Your task to perform on an android device: find photos in the google photos app Image 0: 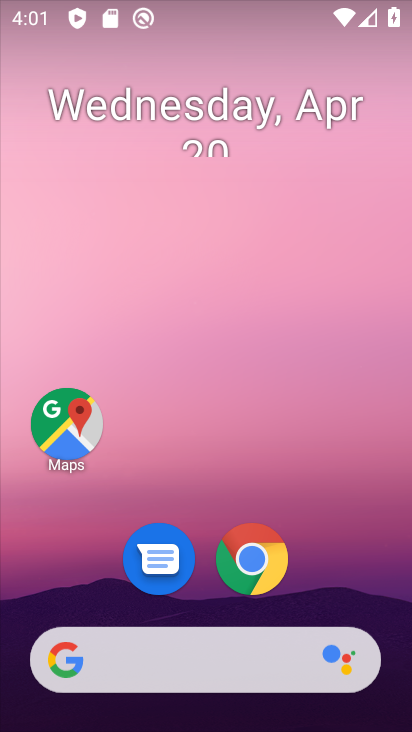
Step 0: drag from (318, 566) to (272, 182)
Your task to perform on an android device: find photos in the google photos app Image 1: 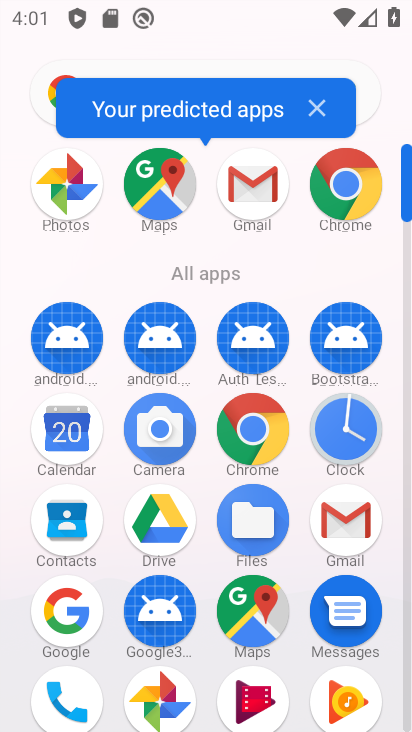
Step 1: click (168, 688)
Your task to perform on an android device: find photos in the google photos app Image 2: 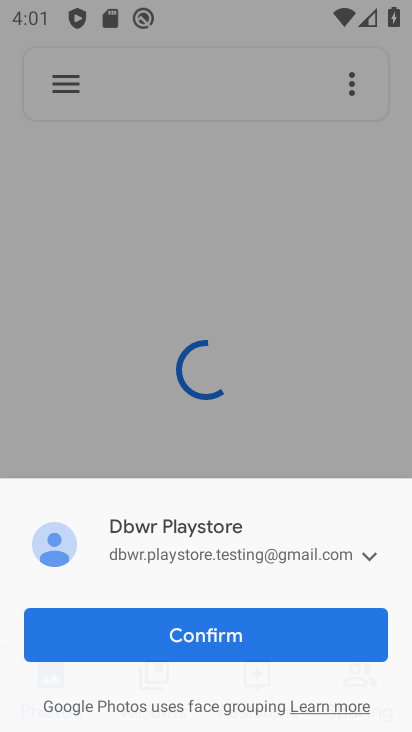
Step 2: click (81, 89)
Your task to perform on an android device: find photos in the google photos app Image 3: 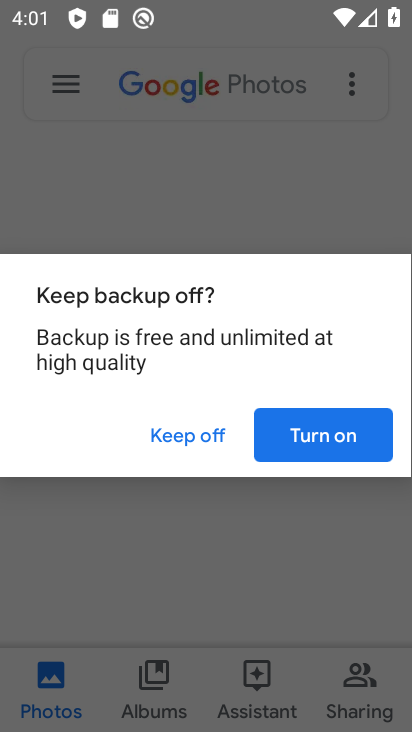
Step 3: click (287, 435)
Your task to perform on an android device: find photos in the google photos app Image 4: 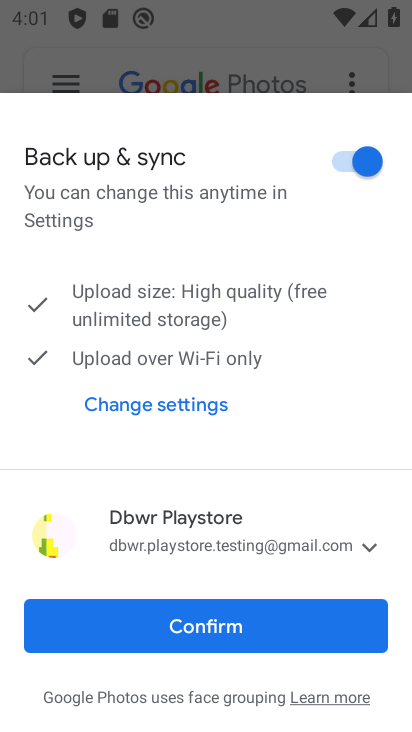
Step 4: click (135, 628)
Your task to perform on an android device: find photos in the google photos app Image 5: 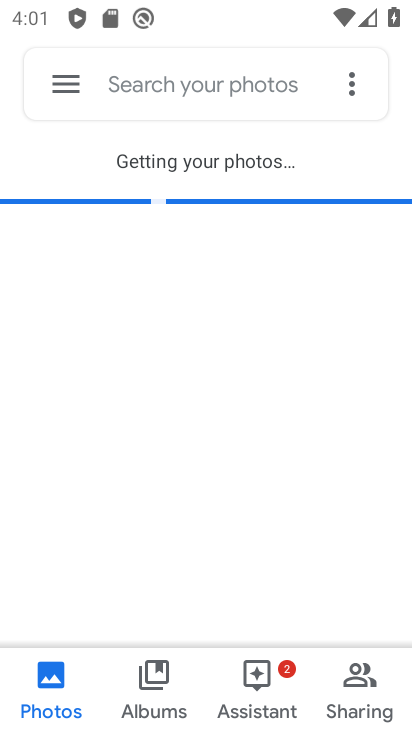
Step 5: click (67, 73)
Your task to perform on an android device: find photos in the google photos app Image 6: 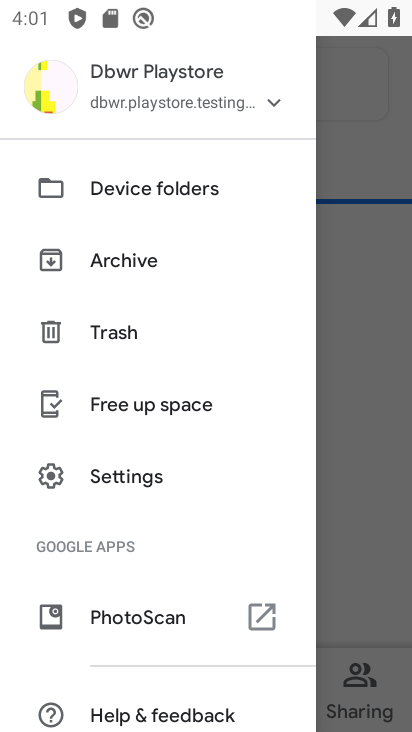
Step 6: click (131, 253)
Your task to perform on an android device: find photos in the google photos app Image 7: 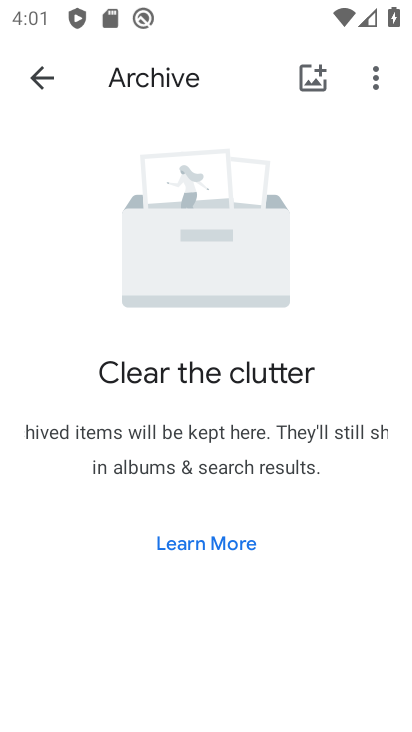
Step 7: task complete